Your task to perform on an android device: open sync settings in chrome Image 0: 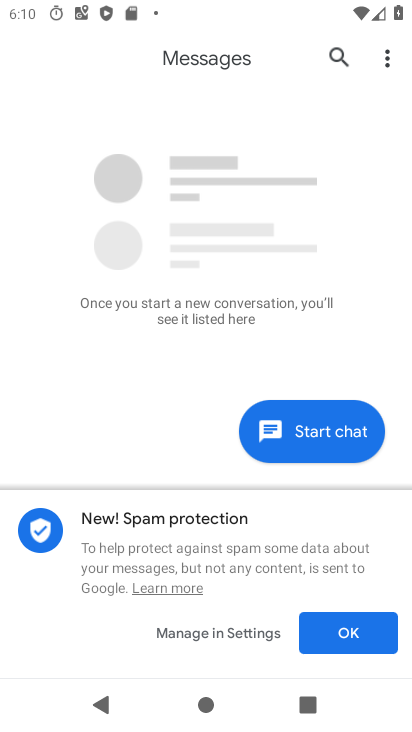
Step 0: press home button
Your task to perform on an android device: open sync settings in chrome Image 1: 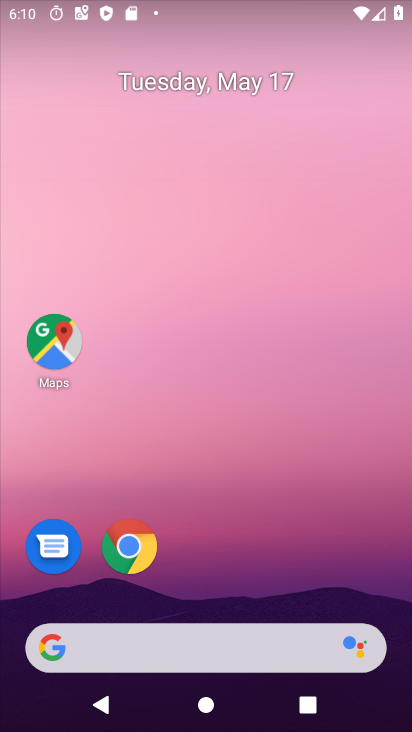
Step 1: click (142, 549)
Your task to perform on an android device: open sync settings in chrome Image 2: 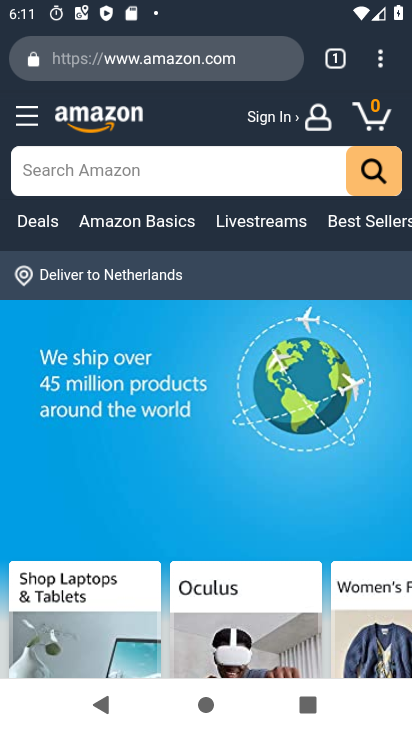
Step 2: click (388, 71)
Your task to perform on an android device: open sync settings in chrome Image 3: 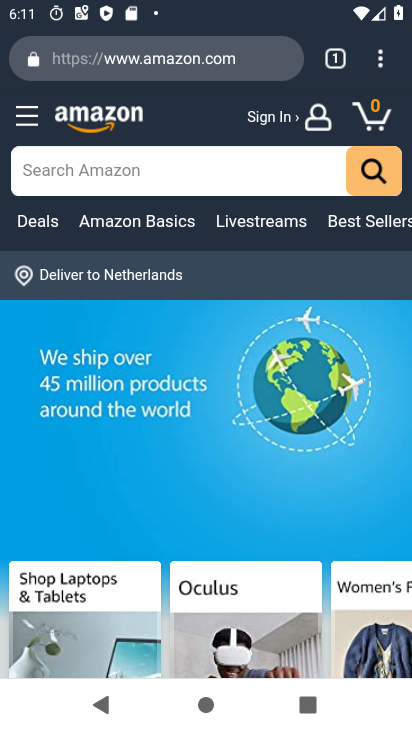
Step 3: click (381, 63)
Your task to perform on an android device: open sync settings in chrome Image 4: 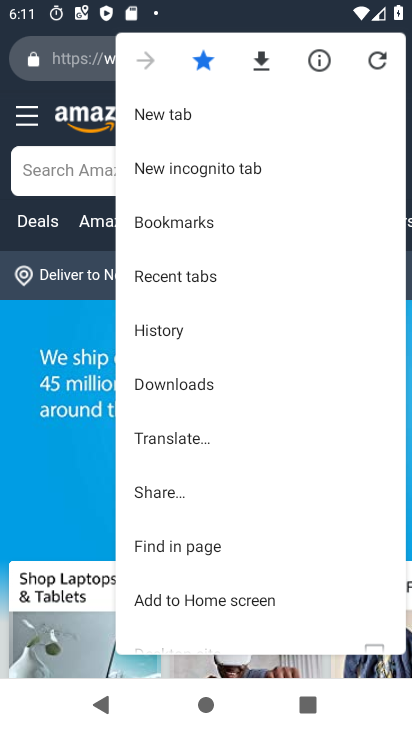
Step 4: drag from (190, 545) to (206, 292)
Your task to perform on an android device: open sync settings in chrome Image 5: 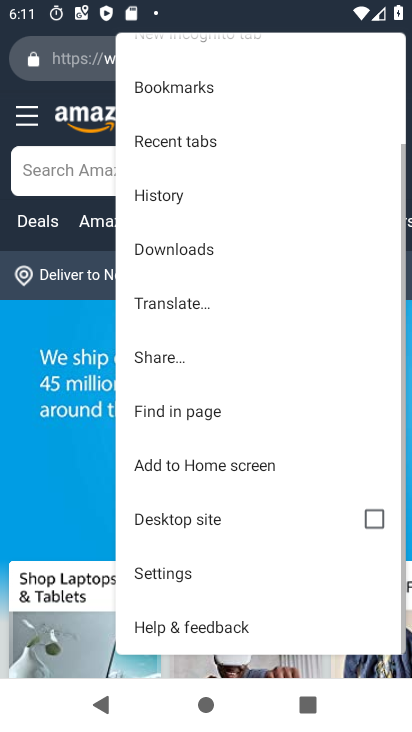
Step 5: click (176, 577)
Your task to perform on an android device: open sync settings in chrome Image 6: 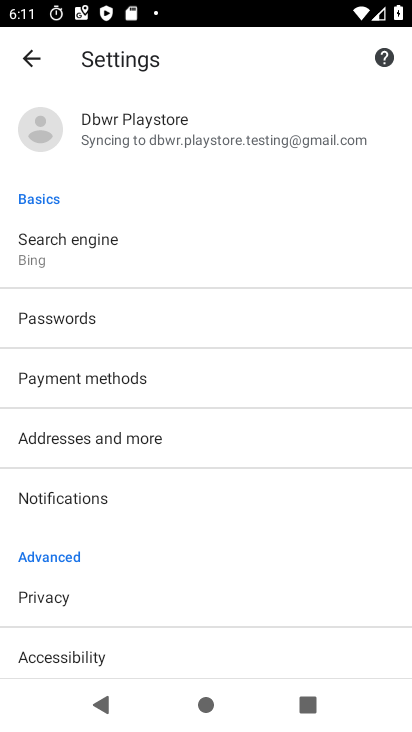
Step 6: drag from (163, 548) to (167, 354)
Your task to perform on an android device: open sync settings in chrome Image 7: 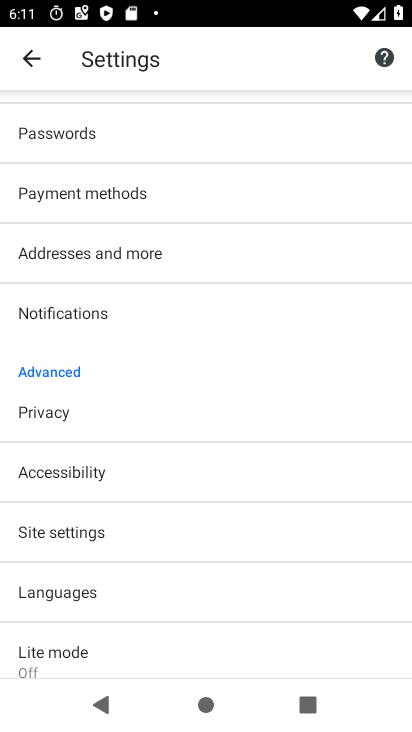
Step 7: drag from (115, 637) to (158, 398)
Your task to perform on an android device: open sync settings in chrome Image 8: 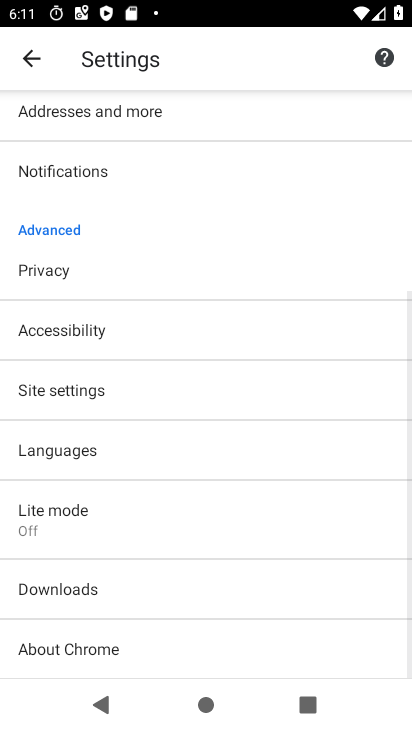
Step 8: drag from (131, 594) to (133, 341)
Your task to perform on an android device: open sync settings in chrome Image 9: 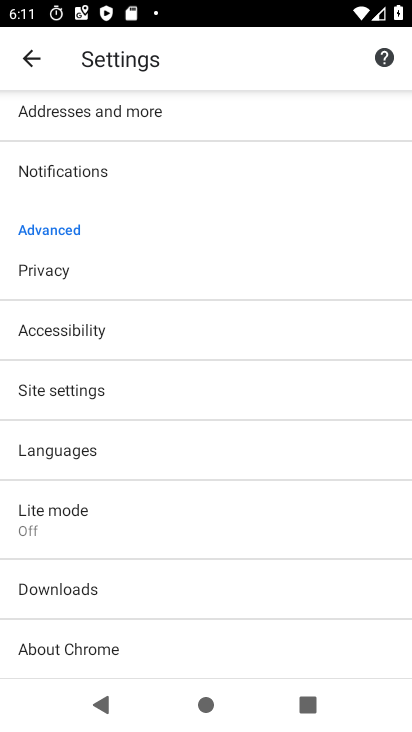
Step 9: drag from (103, 581) to (103, 664)
Your task to perform on an android device: open sync settings in chrome Image 10: 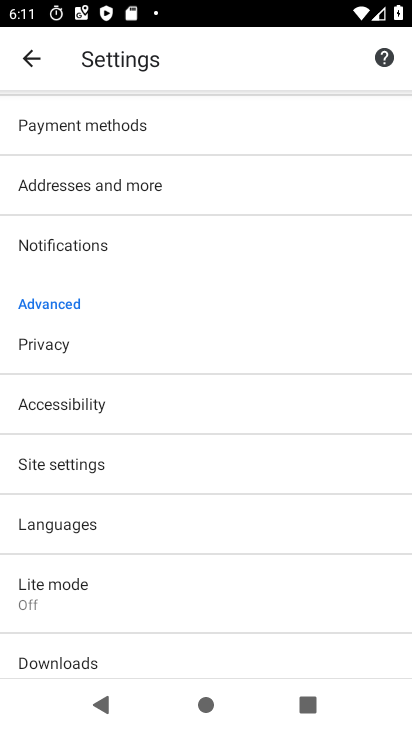
Step 10: drag from (137, 507) to (138, 544)
Your task to perform on an android device: open sync settings in chrome Image 11: 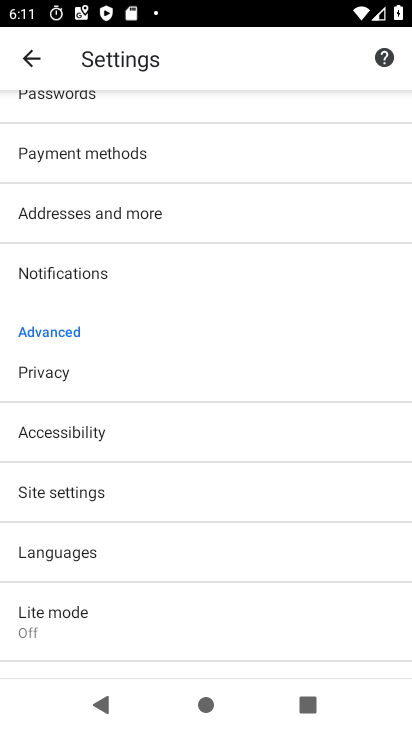
Step 11: drag from (158, 440) to (169, 622)
Your task to perform on an android device: open sync settings in chrome Image 12: 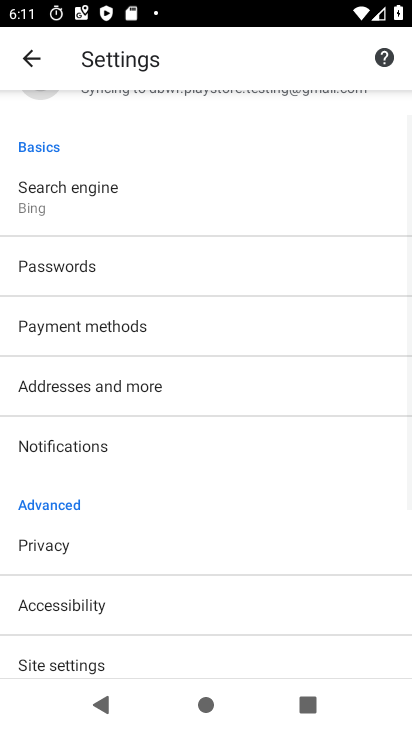
Step 12: drag from (221, 274) to (217, 510)
Your task to perform on an android device: open sync settings in chrome Image 13: 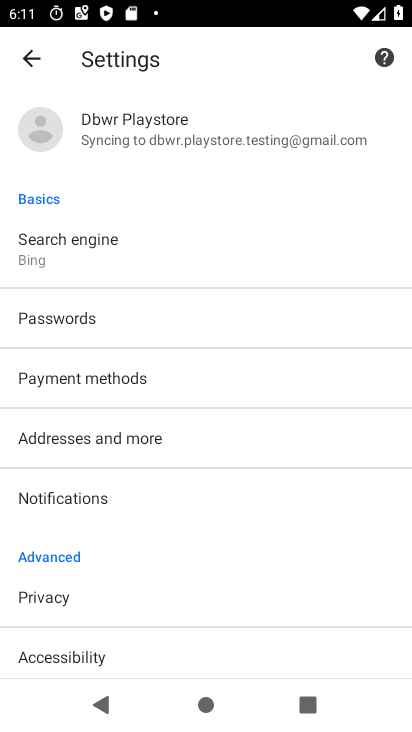
Step 13: click (157, 147)
Your task to perform on an android device: open sync settings in chrome Image 14: 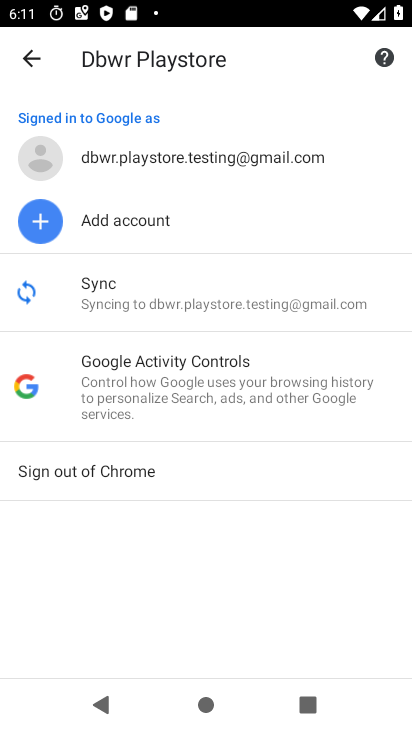
Step 14: click (118, 284)
Your task to perform on an android device: open sync settings in chrome Image 15: 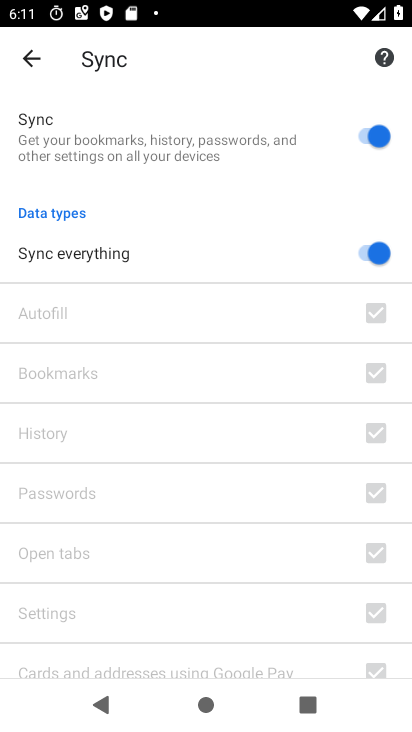
Step 15: task complete